Your task to perform on an android device: Go to battery settings Image 0: 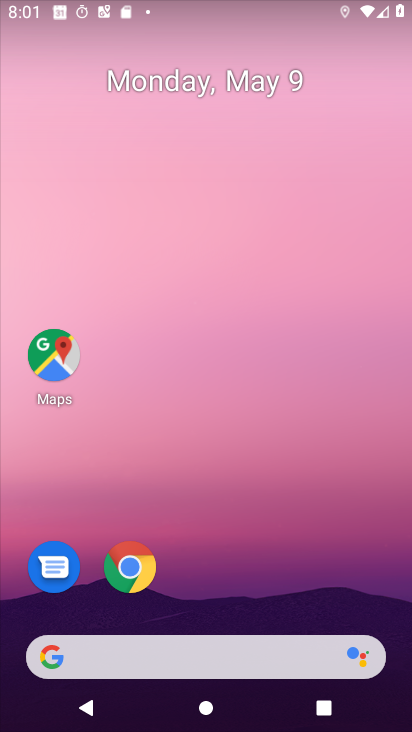
Step 0: drag from (249, 605) to (334, 0)
Your task to perform on an android device: Go to battery settings Image 1: 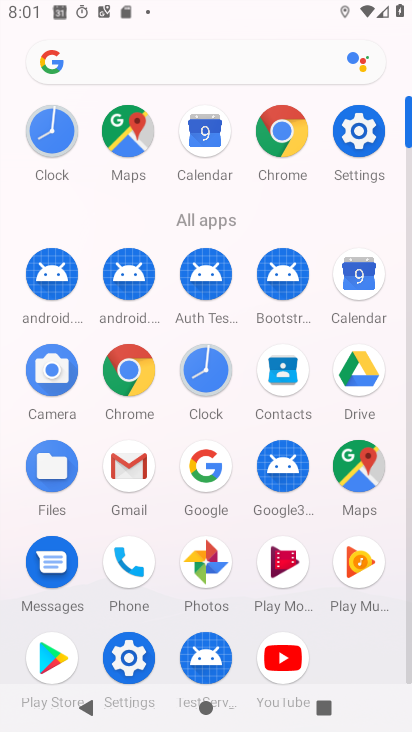
Step 1: click (336, 144)
Your task to perform on an android device: Go to battery settings Image 2: 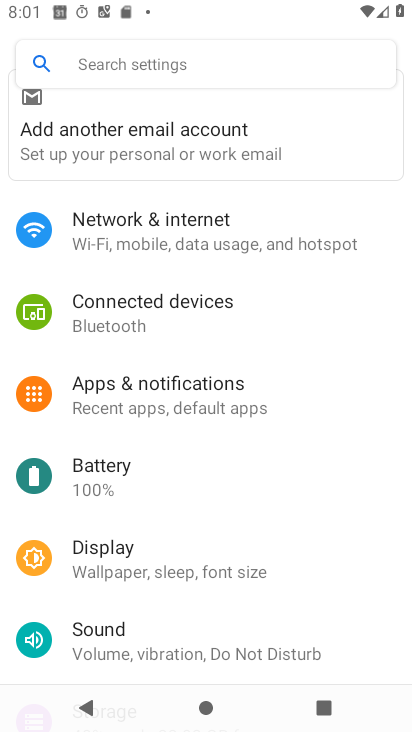
Step 2: click (149, 470)
Your task to perform on an android device: Go to battery settings Image 3: 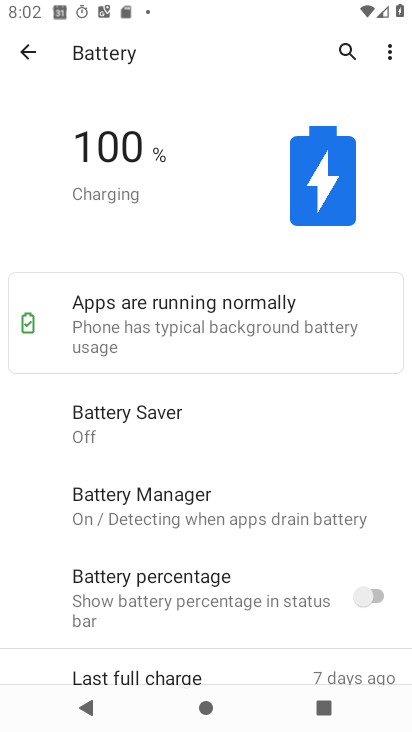
Step 3: task complete